Your task to perform on an android device: turn on bluetooth scan Image 0: 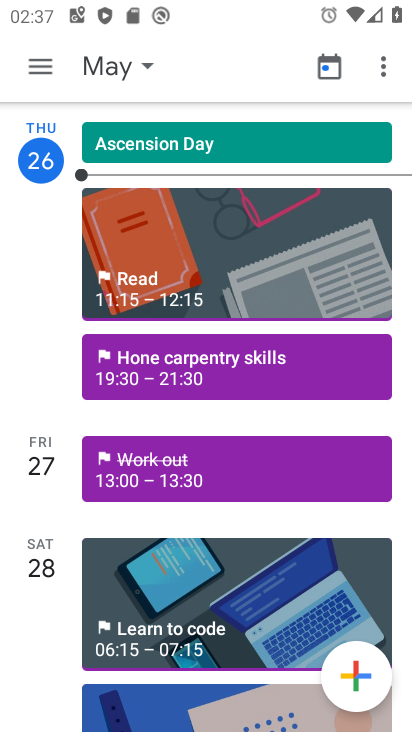
Step 0: press home button
Your task to perform on an android device: turn on bluetooth scan Image 1: 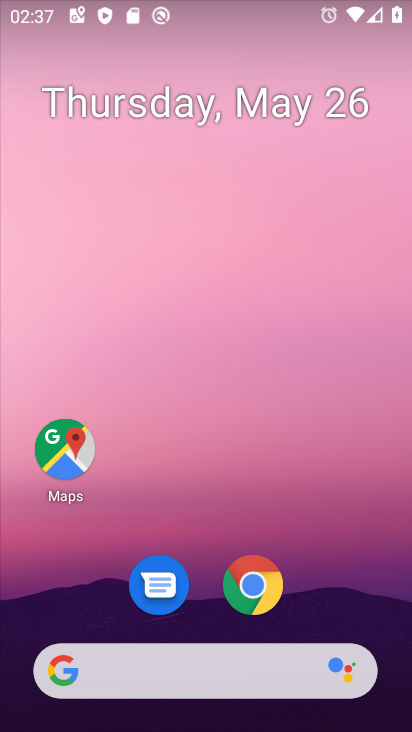
Step 1: drag from (265, 492) to (231, 94)
Your task to perform on an android device: turn on bluetooth scan Image 2: 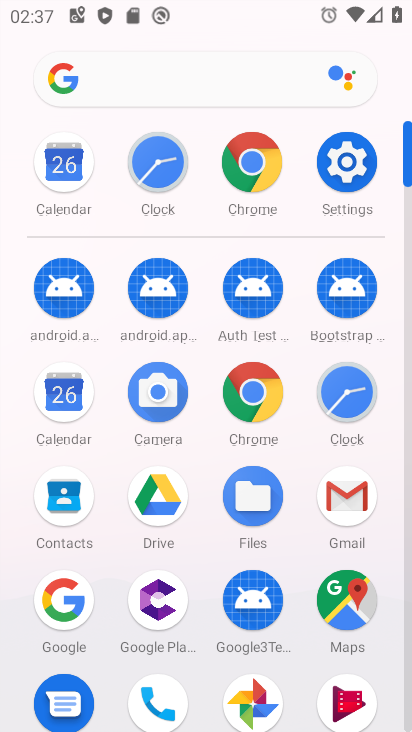
Step 2: click (344, 159)
Your task to perform on an android device: turn on bluetooth scan Image 3: 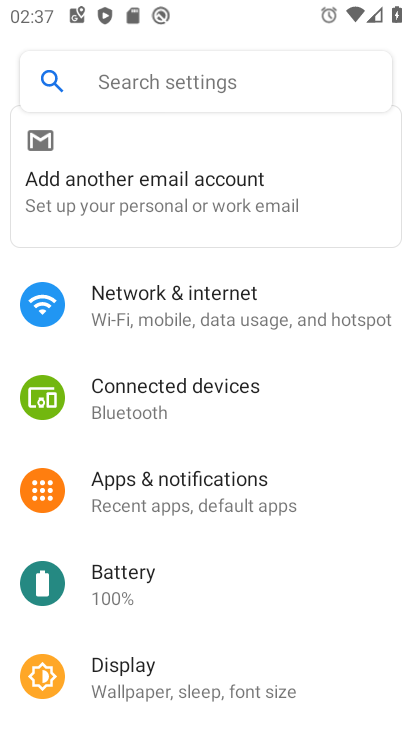
Step 3: drag from (257, 514) to (275, 101)
Your task to perform on an android device: turn on bluetooth scan Image 4: 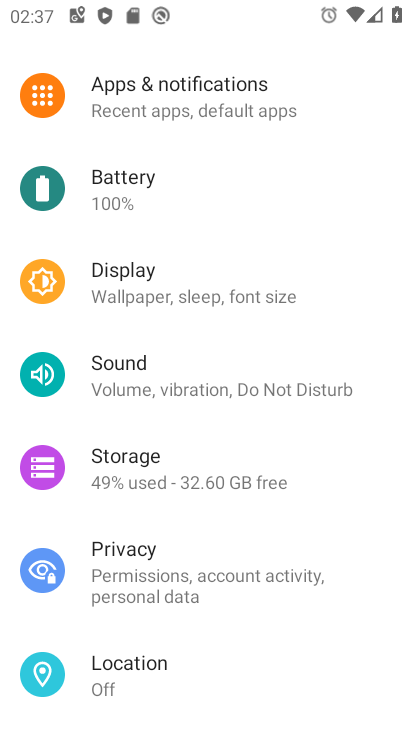
Step 4: click (224, 674)
Your task to perform on an android device: turn on bluetooth scan Image 5: 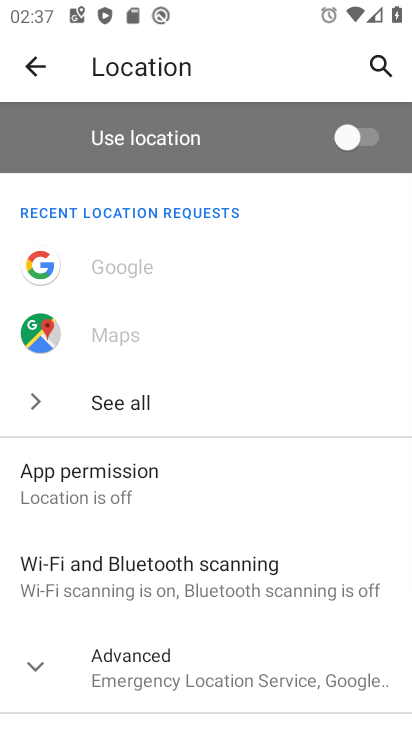
Step 5: drag from (284, 512) to (282, 330)
Your task to perform on an android device: turn on bluetooth scan Image 6: 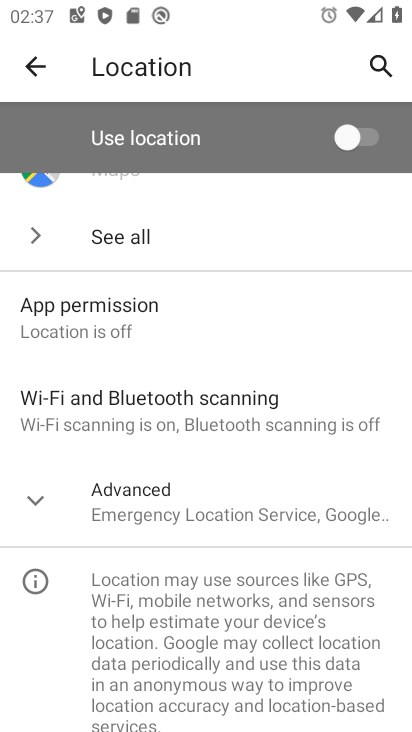
Step 6: click (284, 412)
Your task to perform on an android device: turn on bluetooth scan Image 7: 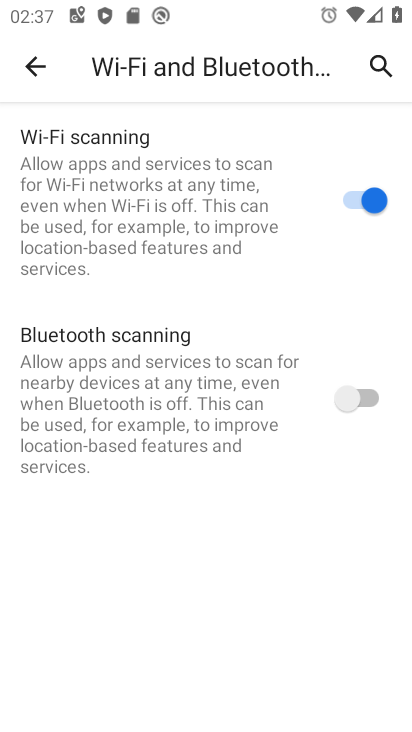
Step 7: click (365, 398)
Your task to perform on an android device: turn on bluetooth scan Image 8: 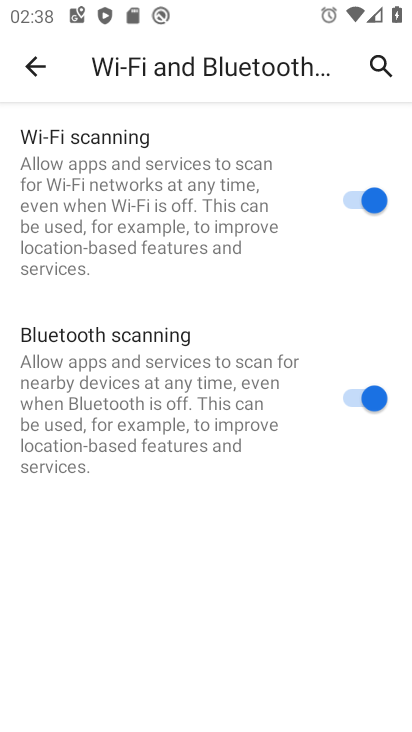
Step 8: task complete